Your task to perform on an android device: change notification settings in the gmail app Image 0: 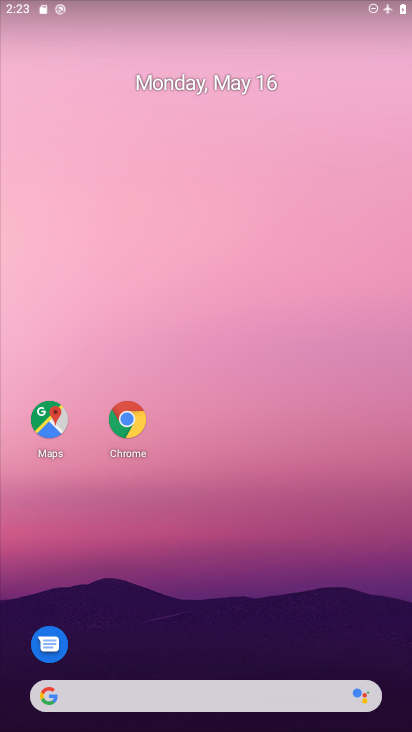
Step 0: drag from (277, 521) to (362, 121)
Your task to perform on an android device: change notification settings in the gmail app Image 1: 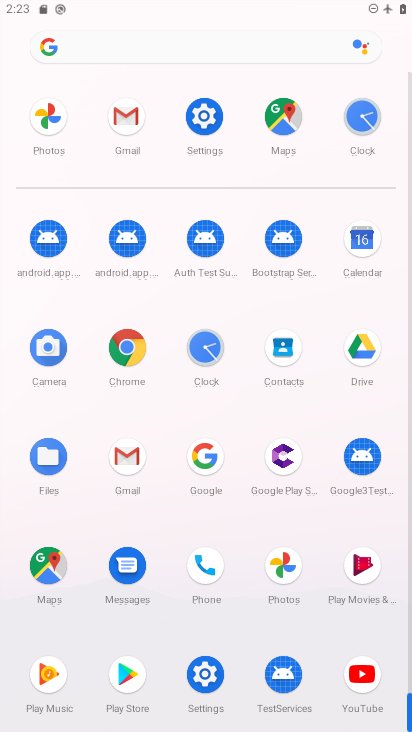
Step 1: click (120, 463)
Your task to perform on an android device: change notification settings in the gmail app Image 2: 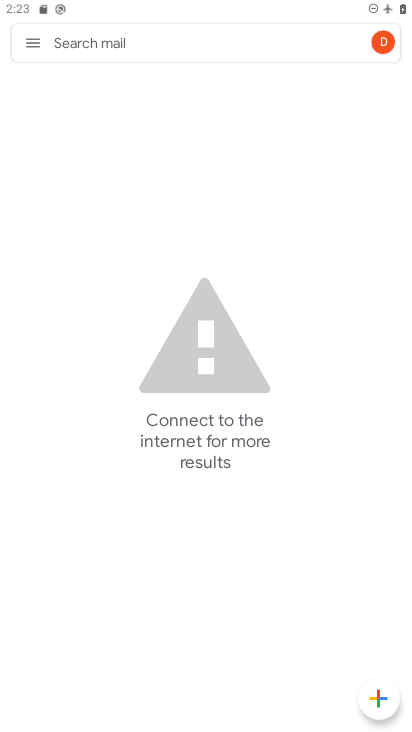
Step 2: click (26, 40)
Your task to perform on an android device: change notification settings in the gmail app Image 3: 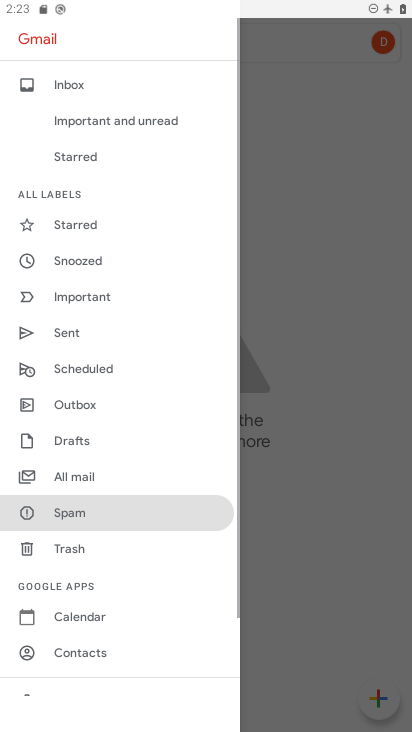
Step 3: drag from (120, 561) to (123, 212)
Your task to perform on an android device: change notification settings in the gmail app Image 4: 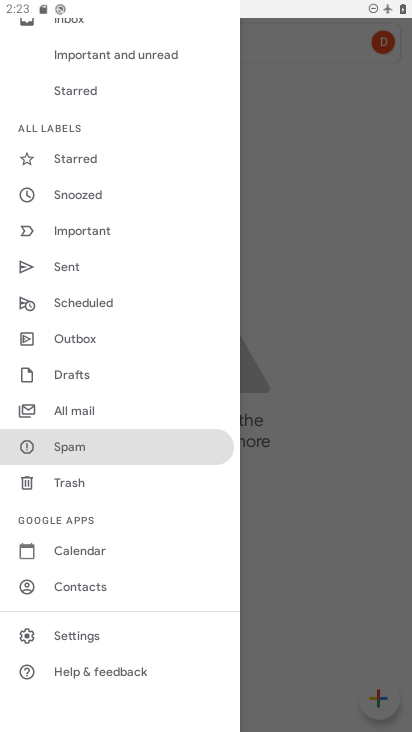
Step 4: drag from (81, 154) to (169, 622)
Your task to perform on an android device: change notification settings in the gmail app Image 5: 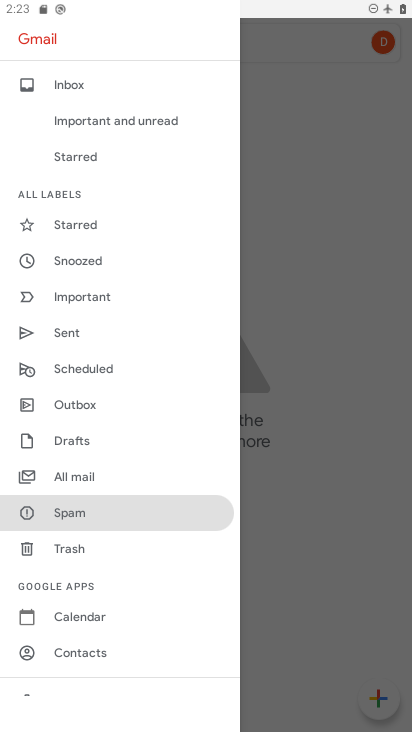
Step 5: click (82, 74)
Your task to perform on an android device: change notification settings in the gmail app Image 6: 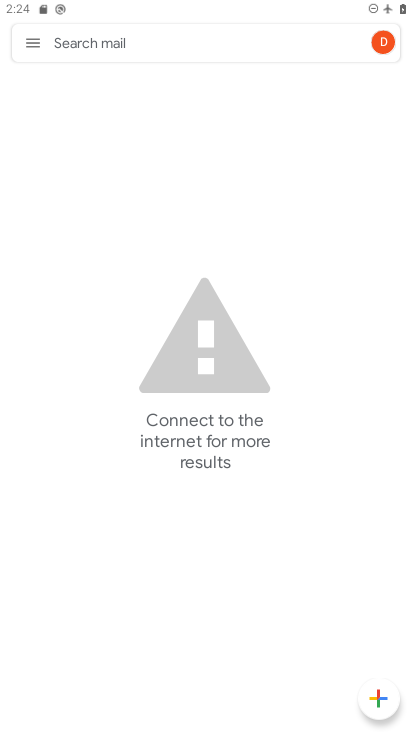
Step 6: click (29, 50)
Your task to perform on an android device: change notification settings in the gmail app Image 7: 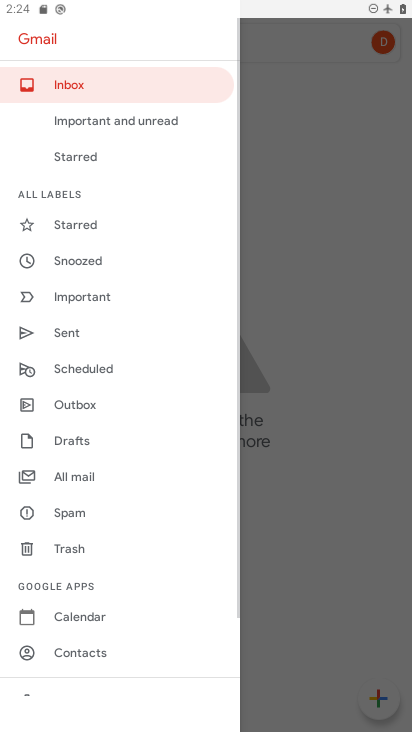
Step 7: click (70, 89)
Your task to perform on an android device: change notification settings in the gmail app Image 8: 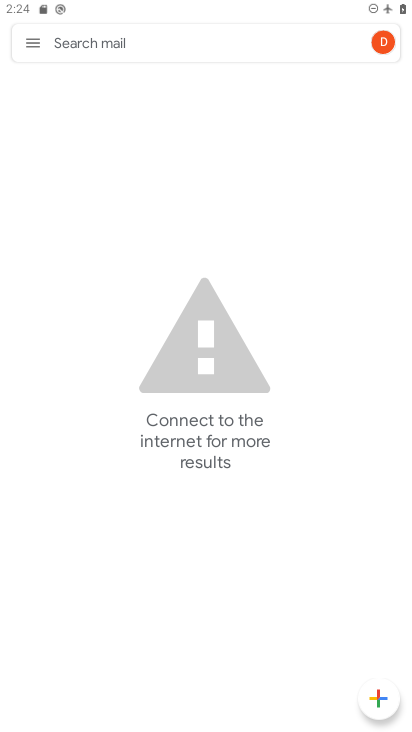
Step 8: click (33, 44)
Your task to perform on an android device: change notification settings in the gmail app Image 9: 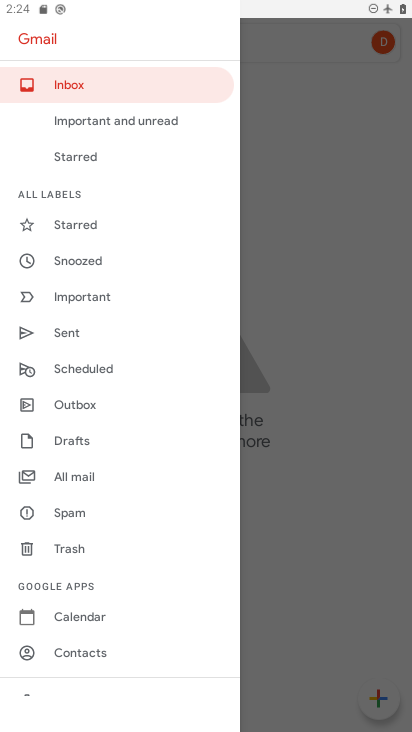
Step 9: drag from (83, 594) to (46, 129)
Your task to perform on an android device: change notification settings in the gmail app Image 10: 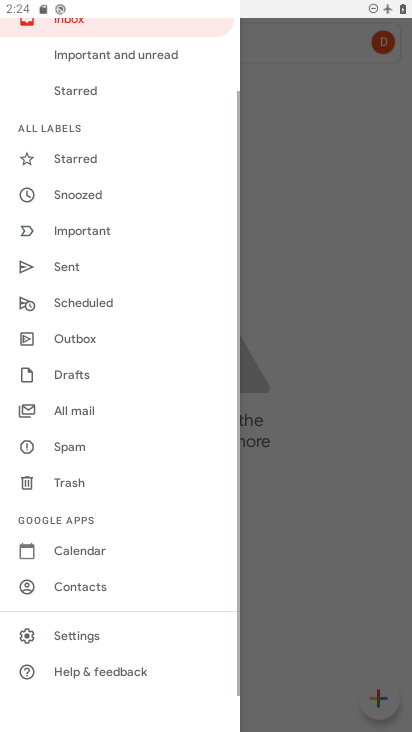
Step 10: click (95, 646)
Your task to perform on an android device: change notification settings in the gmail app Image 11: 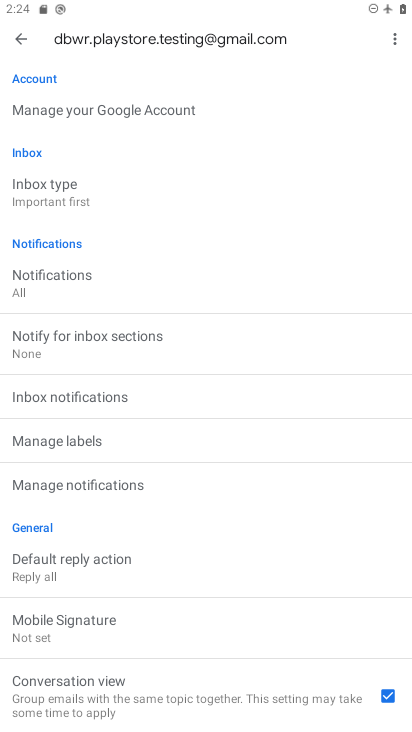
Step 11: drag from (61, 505) to (188, 279)
Your task to perform on an android device: change notification settings in the gmail app Image 12: 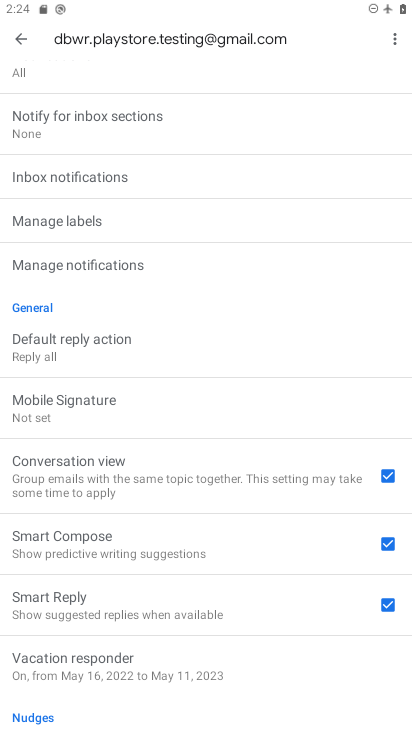
Step 12: click (204, 269)
Your task to perform on an android device: change notification settings in the gmail app Image 13: 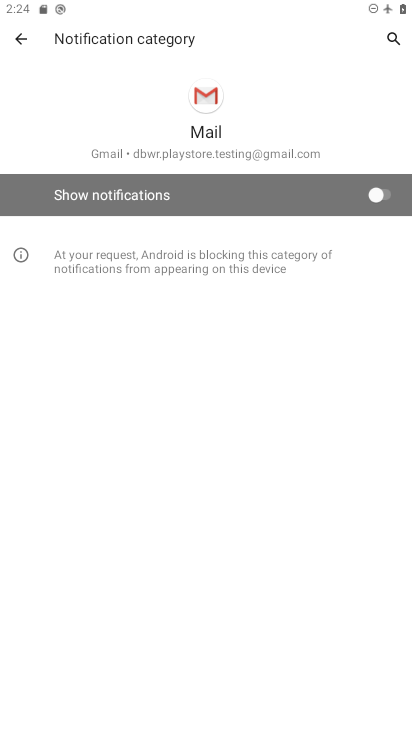
Step 13: click (337, 202)
Your task to perform on an android device: change notification settings in the gmail app Image 14: 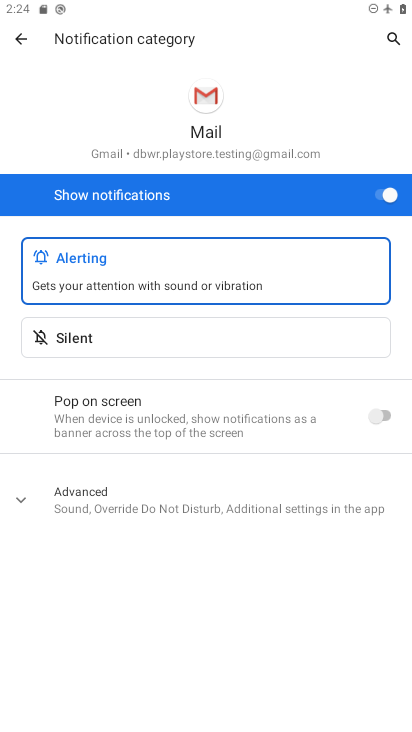
Step 14: task complete